Your task to perform on an android device: Open my contact list Image 0: 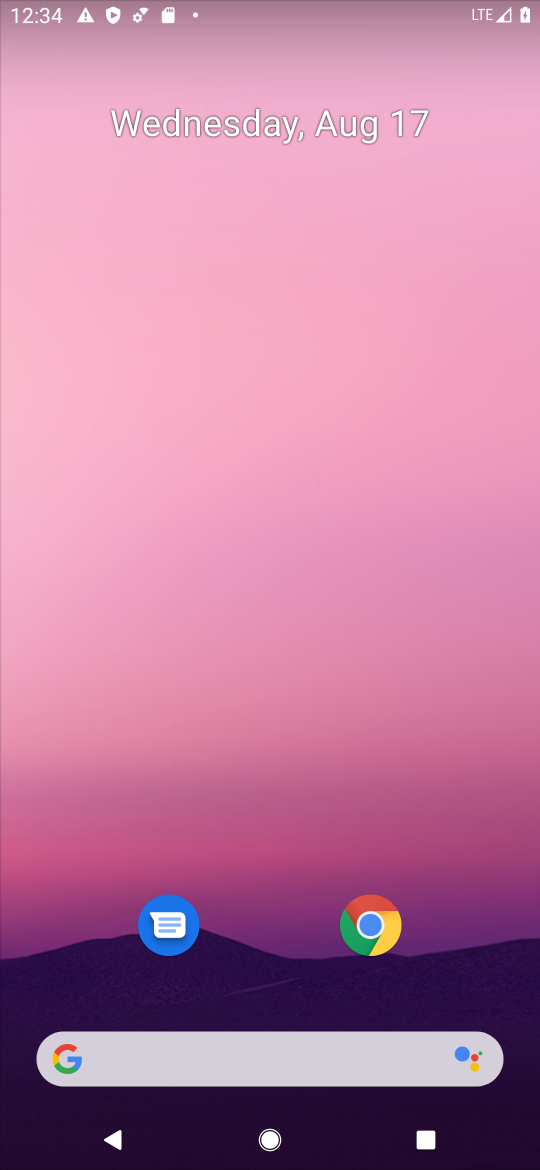
Step 0: drag from (263, 1009) to (226, 103)
Your task to perform on an android device: Open my contact list Image 1: 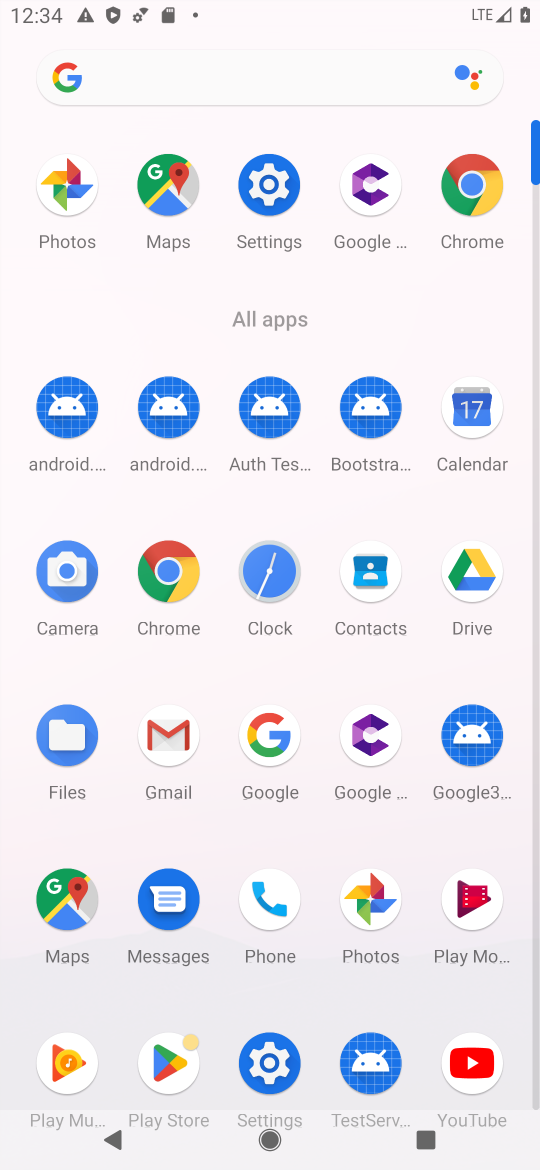
Step 1: click (276, 921)
Your task to perform on an android device: Open my contact list Image 2: 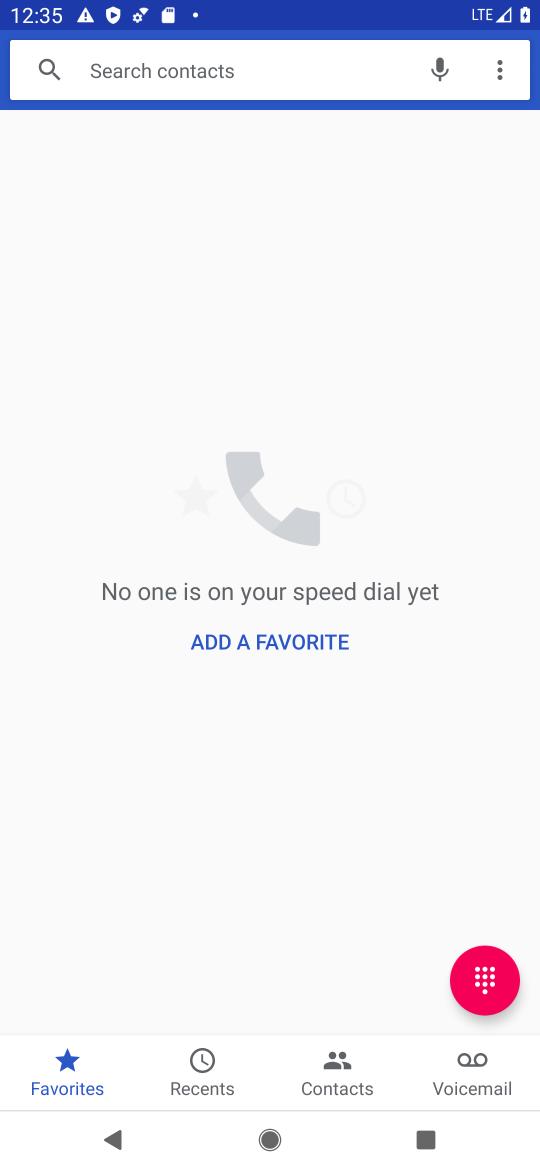
Step 2: click (340, 1070)
Your task to perform on an android device: Open my contact list Image 3: 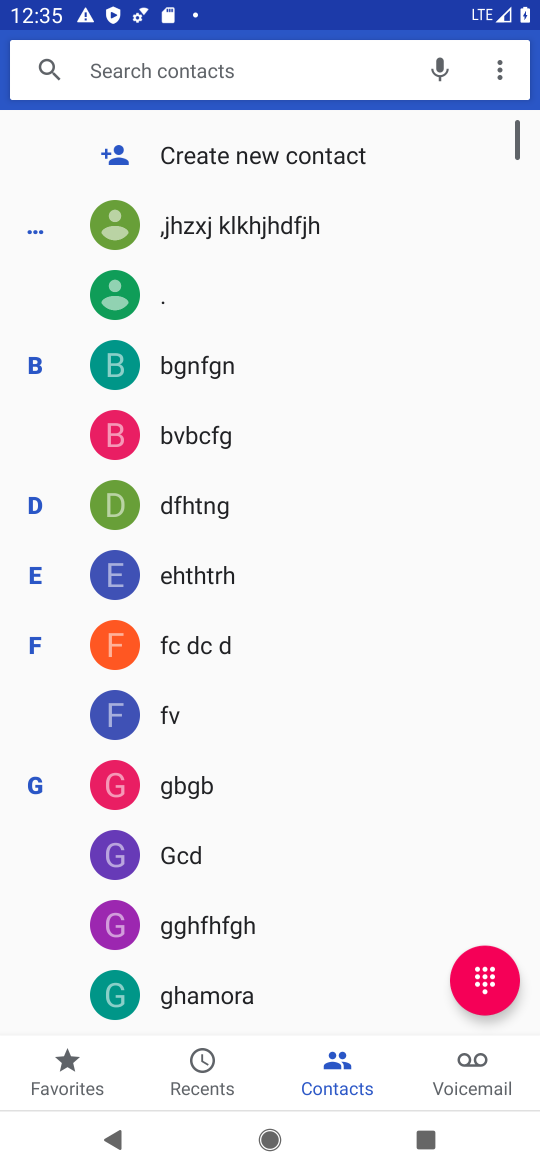
Step 3: task complete